Your task to perform on an android device: turn off data saver in the chrome app Image 0: 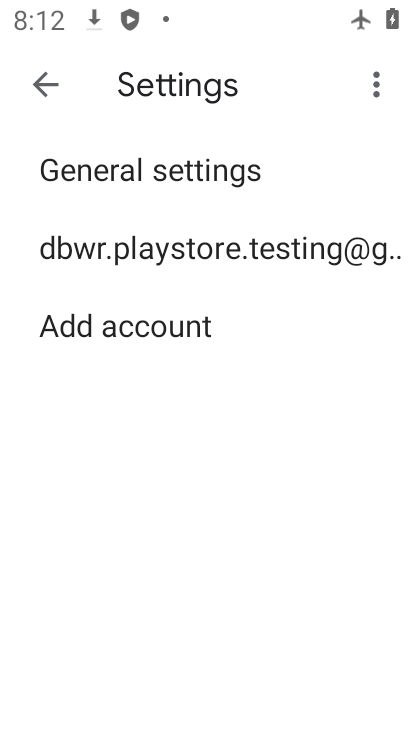
Step 0: press home button
Your task to perform on an android device: turn off data saver in the chrome app Image 1: 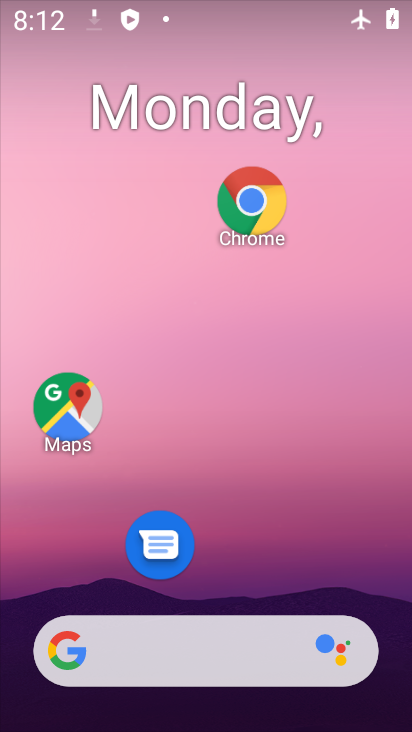
Step 1: click (252, 207)
Your task to perform on an android device: turn off data saver in the chrome app Image 2: 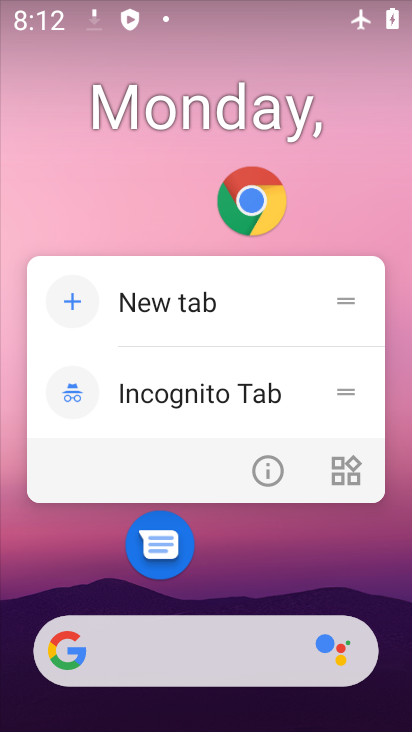
Step 2: click (259, 197)
Your task to perform on an android device: turn off data saver in the chrome app Image 3: 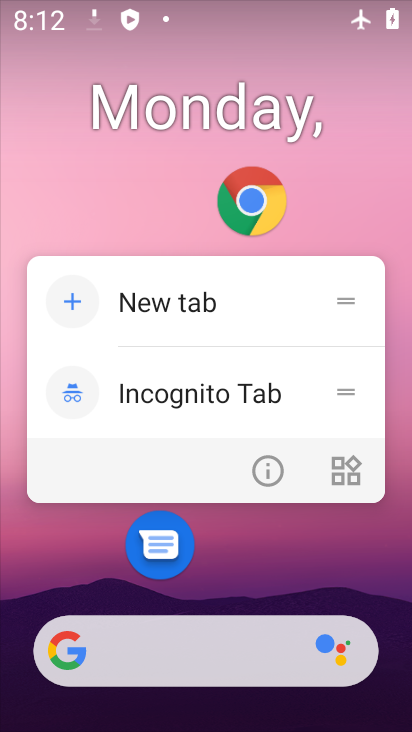
Step 3: click (259, 197)
Your task to perform on an android device: turn off data saver in the chrome app Image 4: 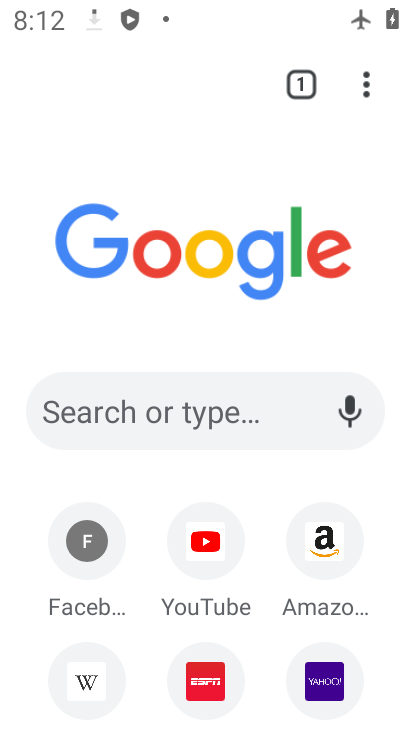
Step 4: click (368, 91)
Your task to perform on an android device: turn off data saver in the chrome app Image 5: 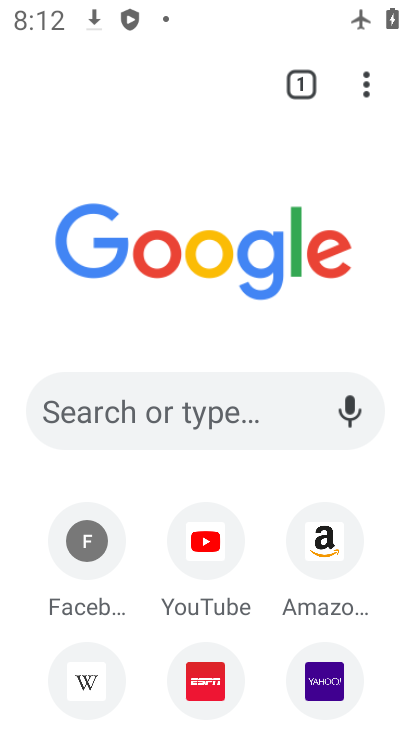
Step 5: click (368, 85)
Your task to perform on an android device: turn off data saver in the chrome app Image 6: 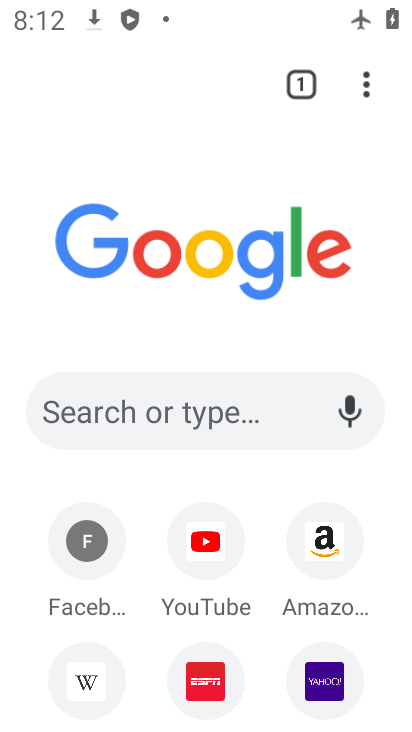
Step 6: click (365, 87)
Your task to perform on an android device: turn off data saver in the chrome app Image 7: 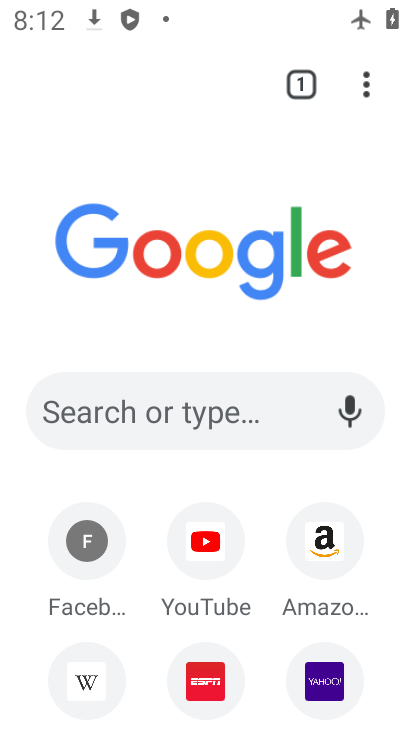
Step 7: click (361, 98)
Your task to perform on an android device: turn off data saver in the chrome app Image 8: 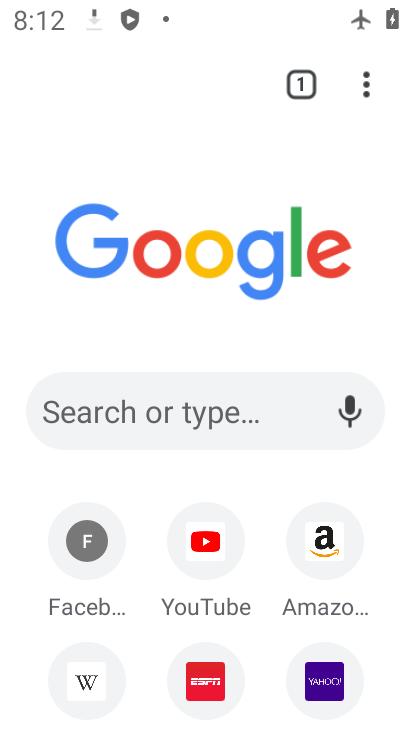
Step 8: click (365, 82)
Your task to perform on an android device: turn off data saver in the chrome app Image 9: 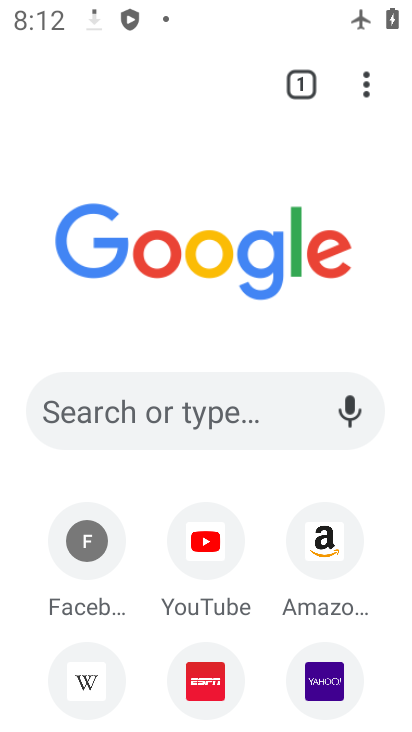
Step 9: click (369, 90)
Your task to perform on an android device: turn off data saver in the chrome app Image 10: 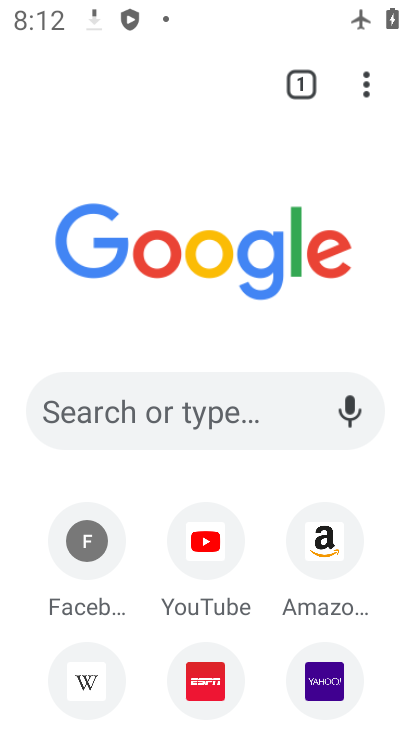
Step 10: click (361, 71)
Your task to perform on an android device: turn off data saver in the chrome app Image 11: 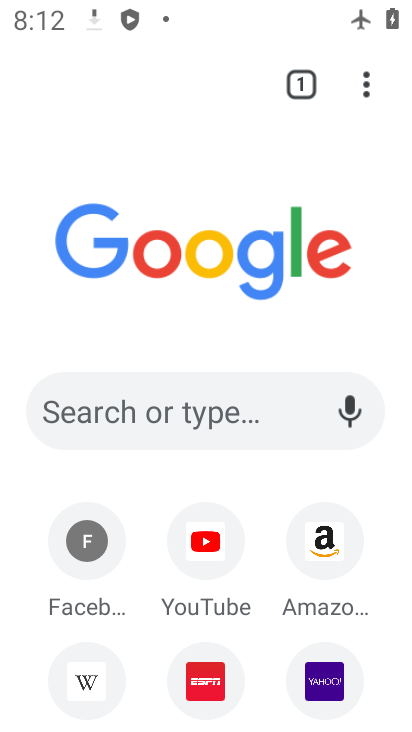
Step 11: click (363, 78)
Your task to perform on an android device: turn off data saver in the chrome app Image 12: 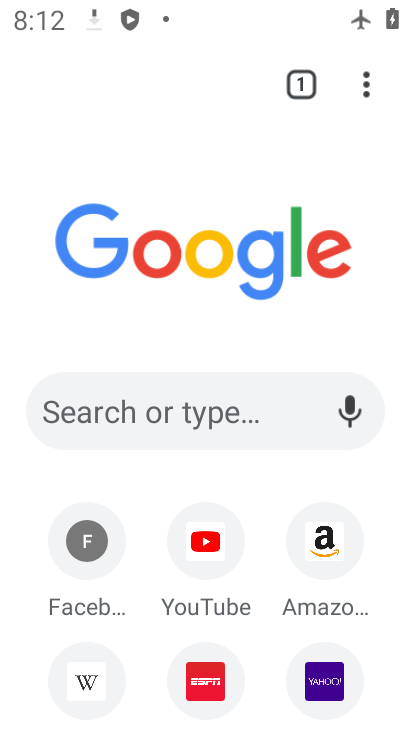
Step 12: click (364, 75)
Your task to perform on an android device: turn off data saver in the chrome app Image 13: 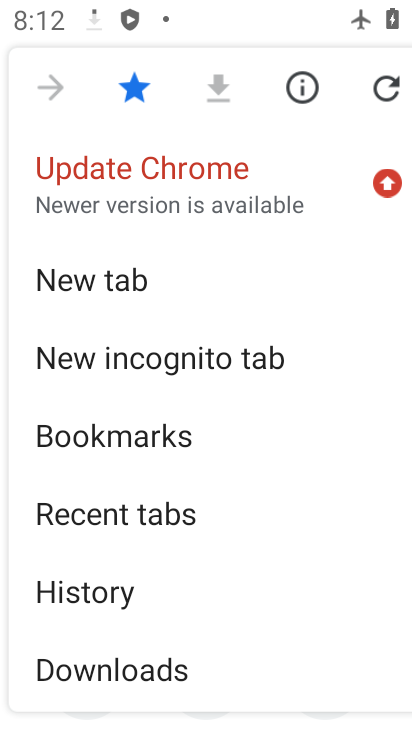
Step 13: drag from (252, 426) to (263, 181)
Your task to perform on an android device: turn off data saver in the chrome app Image 14: 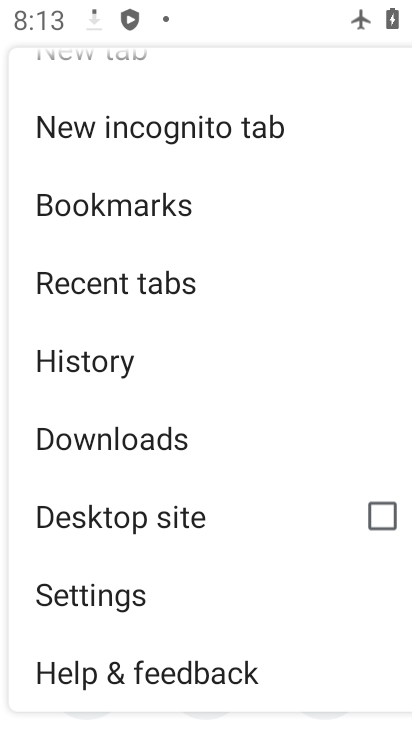
Step 14: click (143, 595)
Your task to perform on an android device: turn off data saver in the chrome app Image 15: 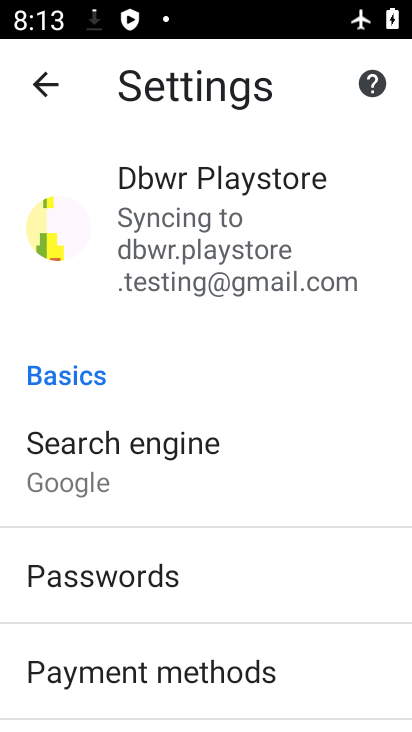
Step 15: drag from (210, 586) to (258, 246)
Your task to perform on an android device: turn off data saver in the chrome app Image 16: 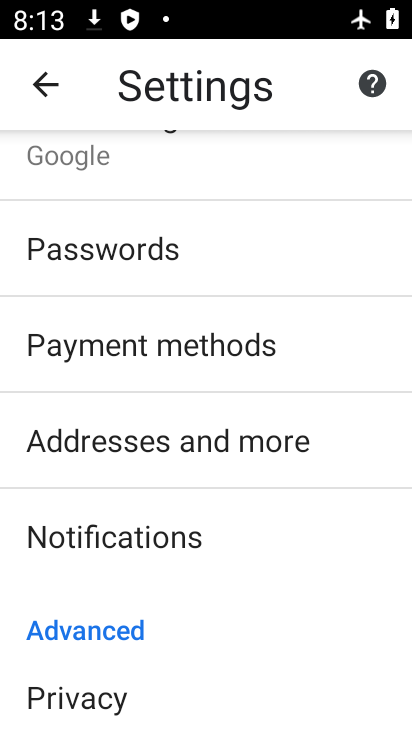
Step 16: drag from (232, 618) to (236, 238)
Your task to perform on an android device: turn off data saver in the chrome app Image 17: 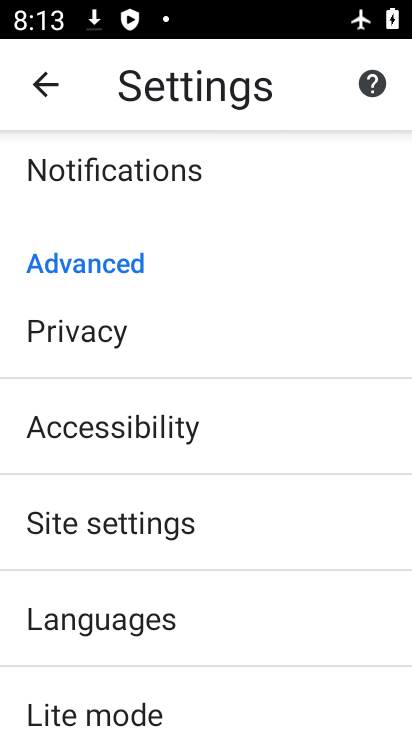
Step 17: drag from (230, 609) to (259, 296)
Your task to perform on an android device: turn off data saver in the chrome app Image 18: 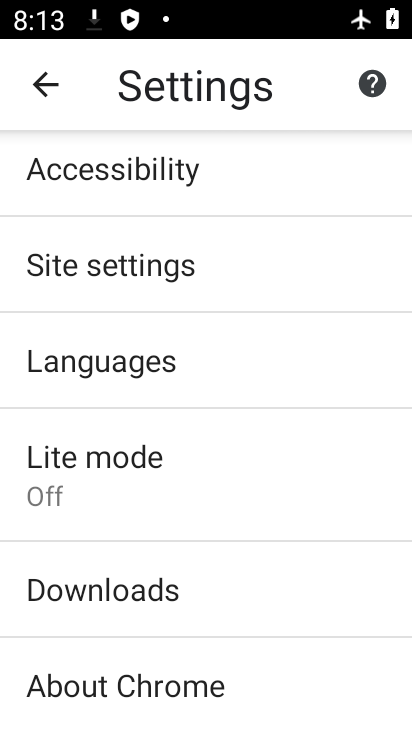
Step 18: click (163, 473)
Your task to perform on an android device: turn off data saver in the chrome app Image 19: 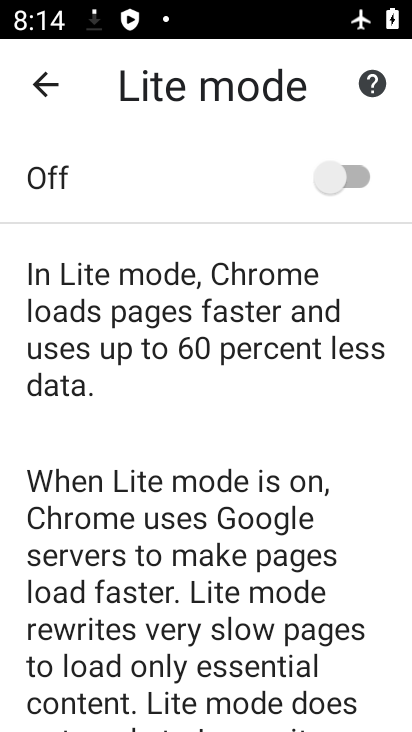
Step 19: task complete